Your task to perform on an android device: Go to eBay Image 0: 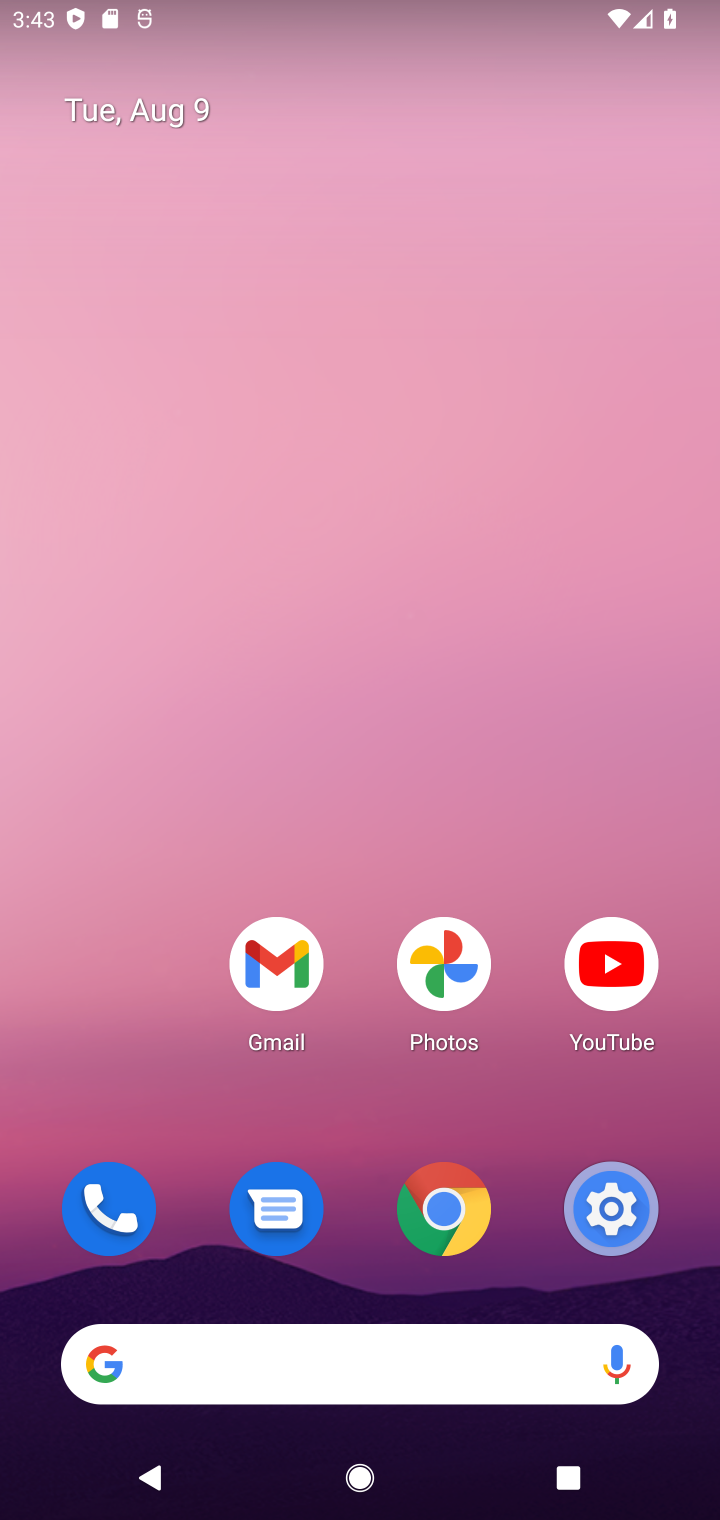
Step 0: click (446, 1213)
Your task to perform on an android device: Go to eBay Image 1: 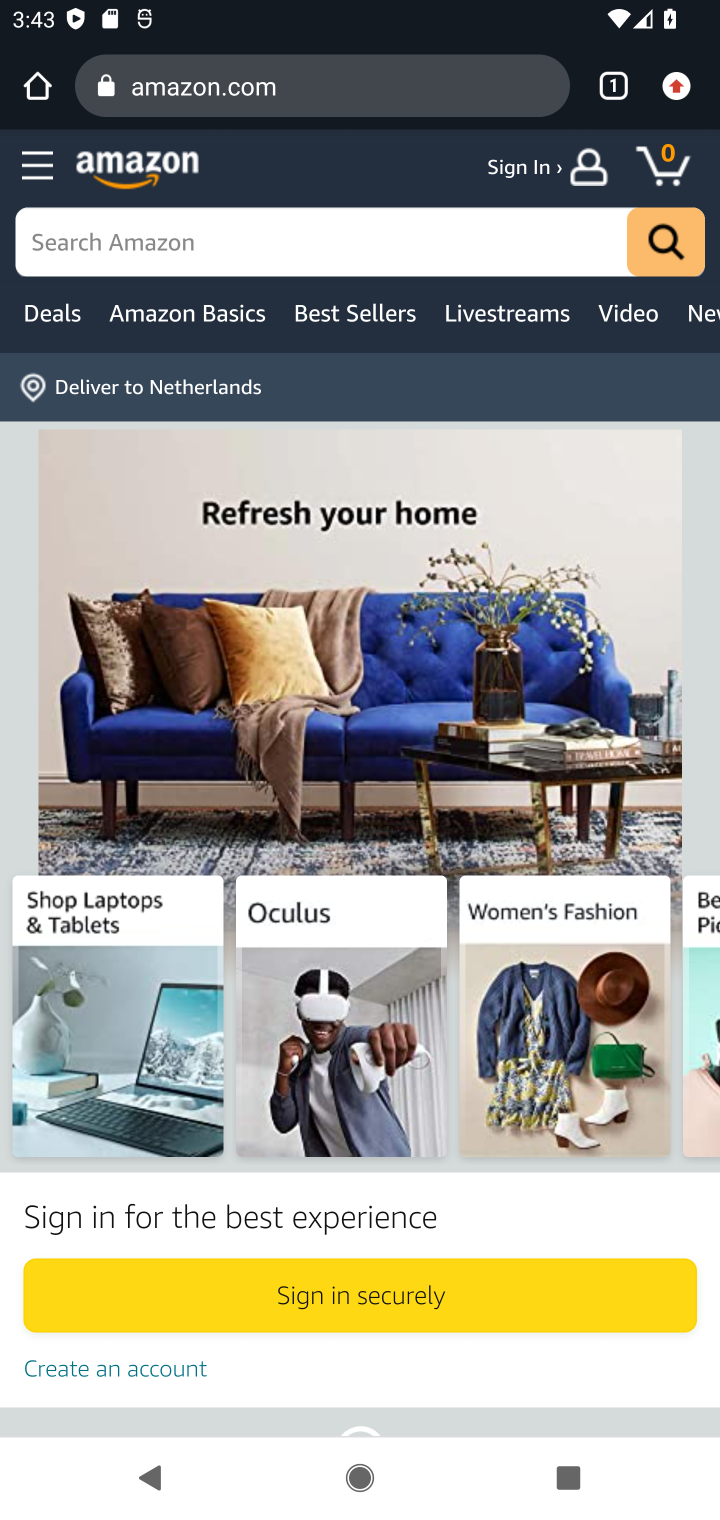
Step 1: click (667, 87)
Your task to perform on an android device: Go to eBay Image 2: 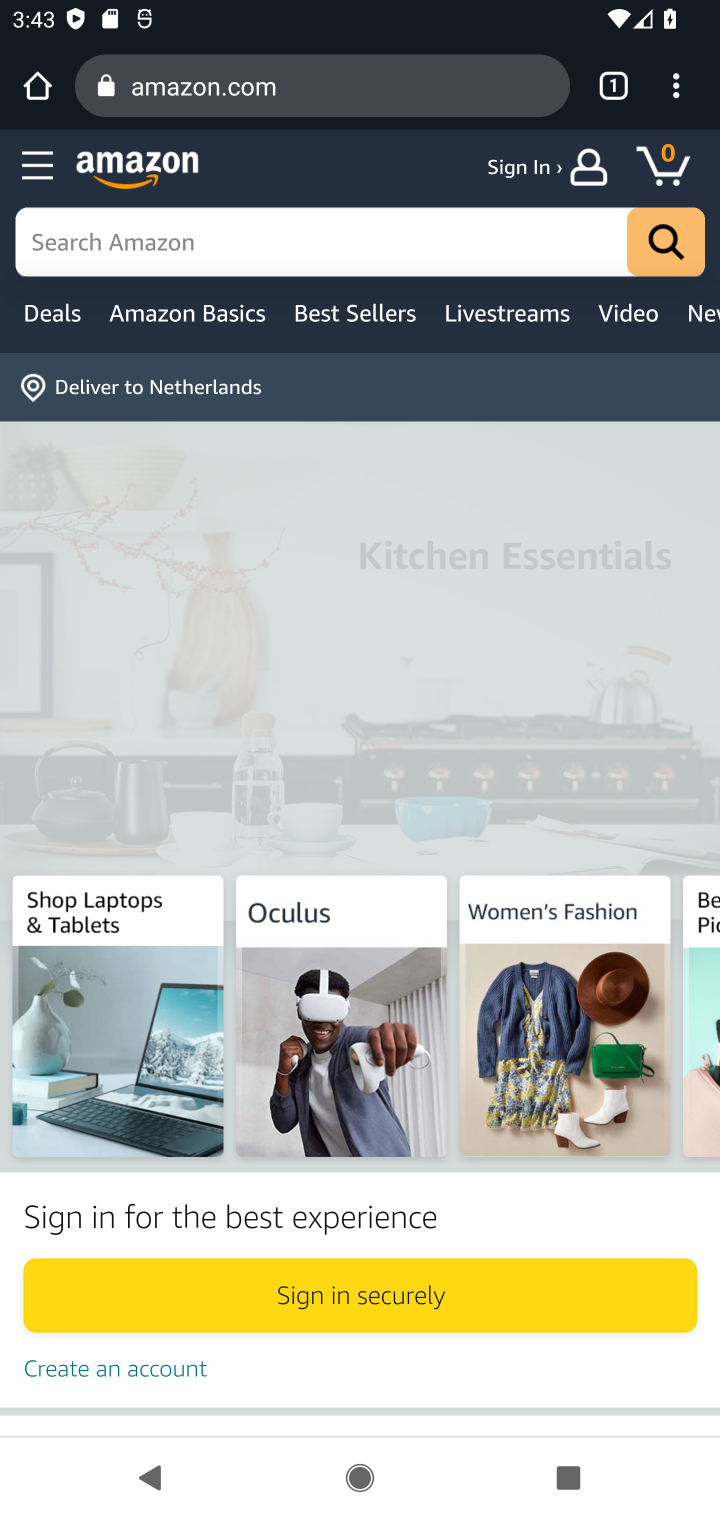
Step 2: click (681, 102)
Your task to perform on an android device: Go to eBay Image 3: 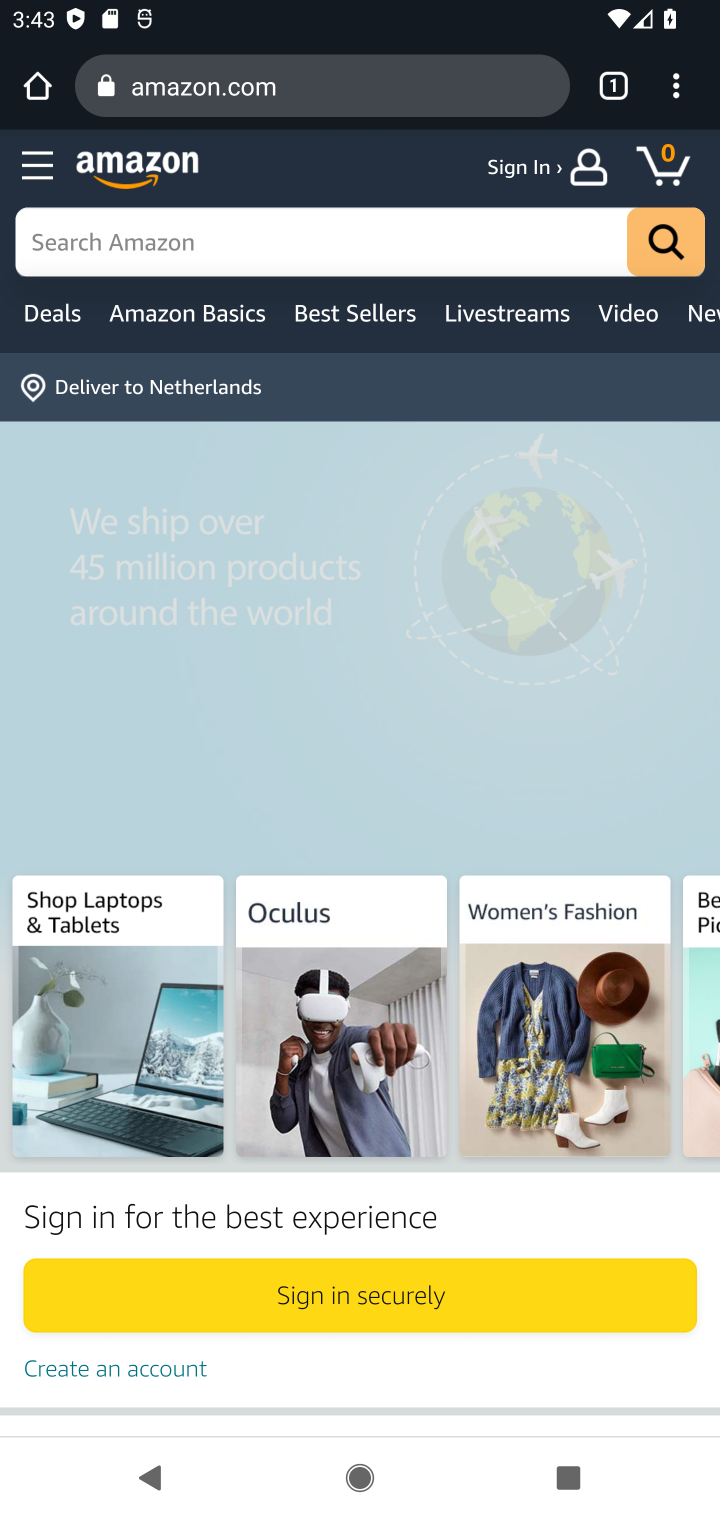
Step 3: click (652, 76)
Your task to perform on an android device: Go to eBay Image 4: 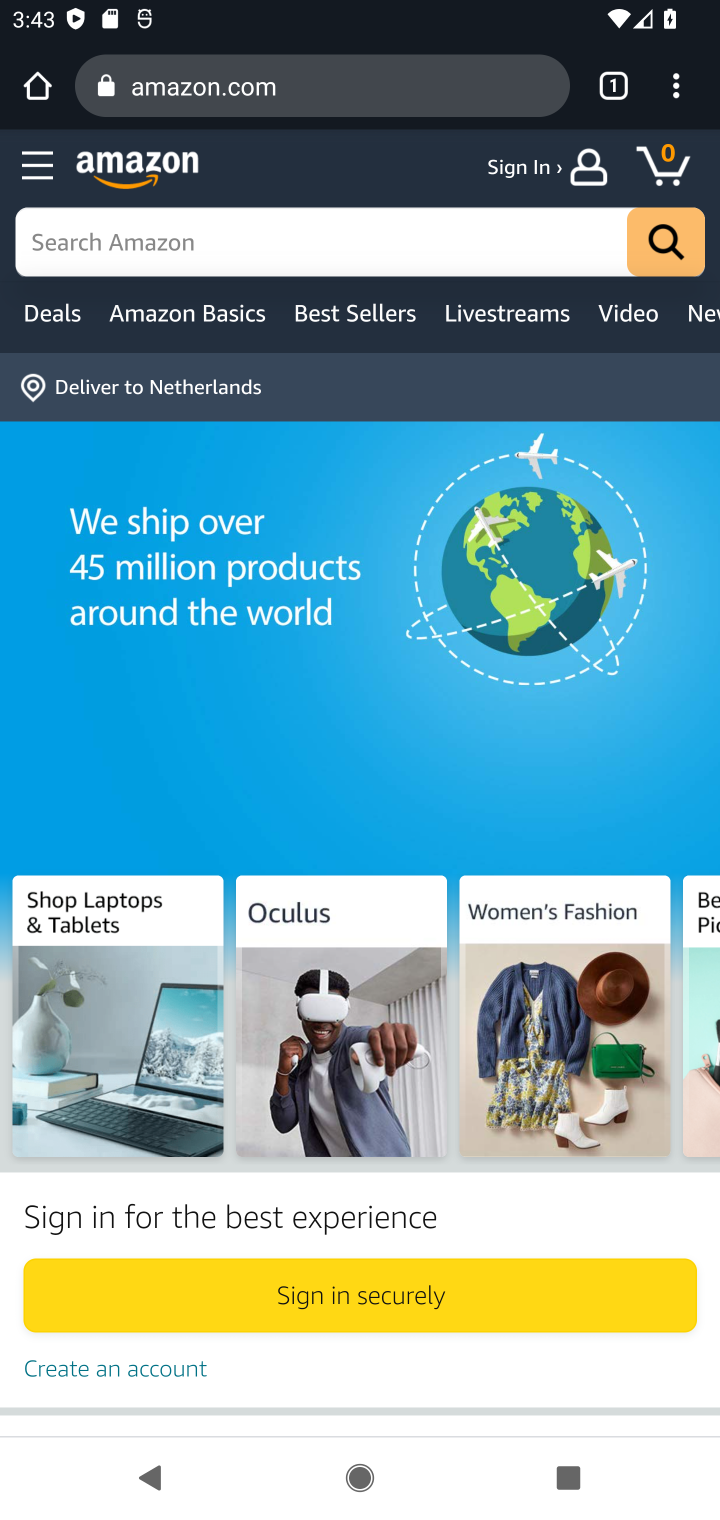
Step 4: click (40, 81)
Your task to perform on an android device: Go to eBay Image 5: 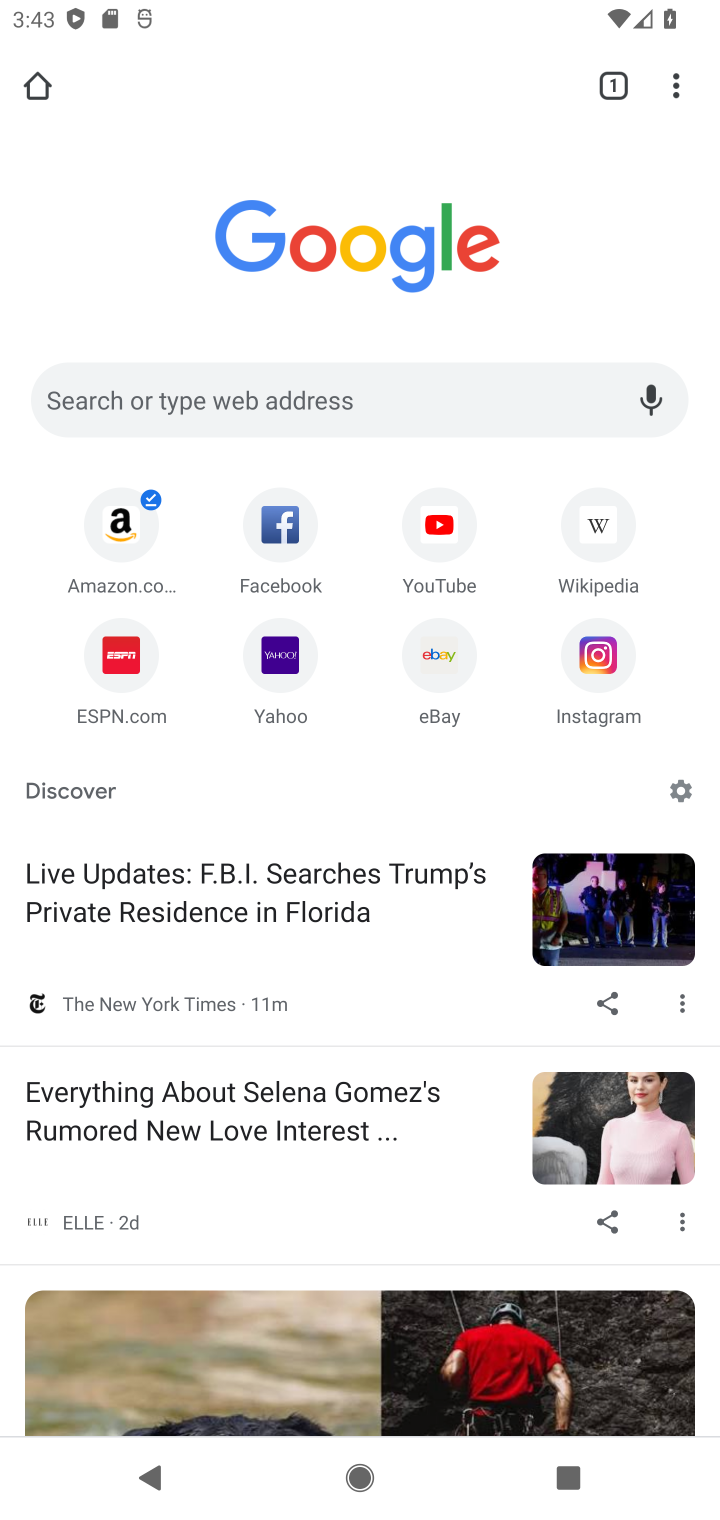
Step 5: click (426, 658)
Your task to perform on an android device: Go to eBay Image 6: 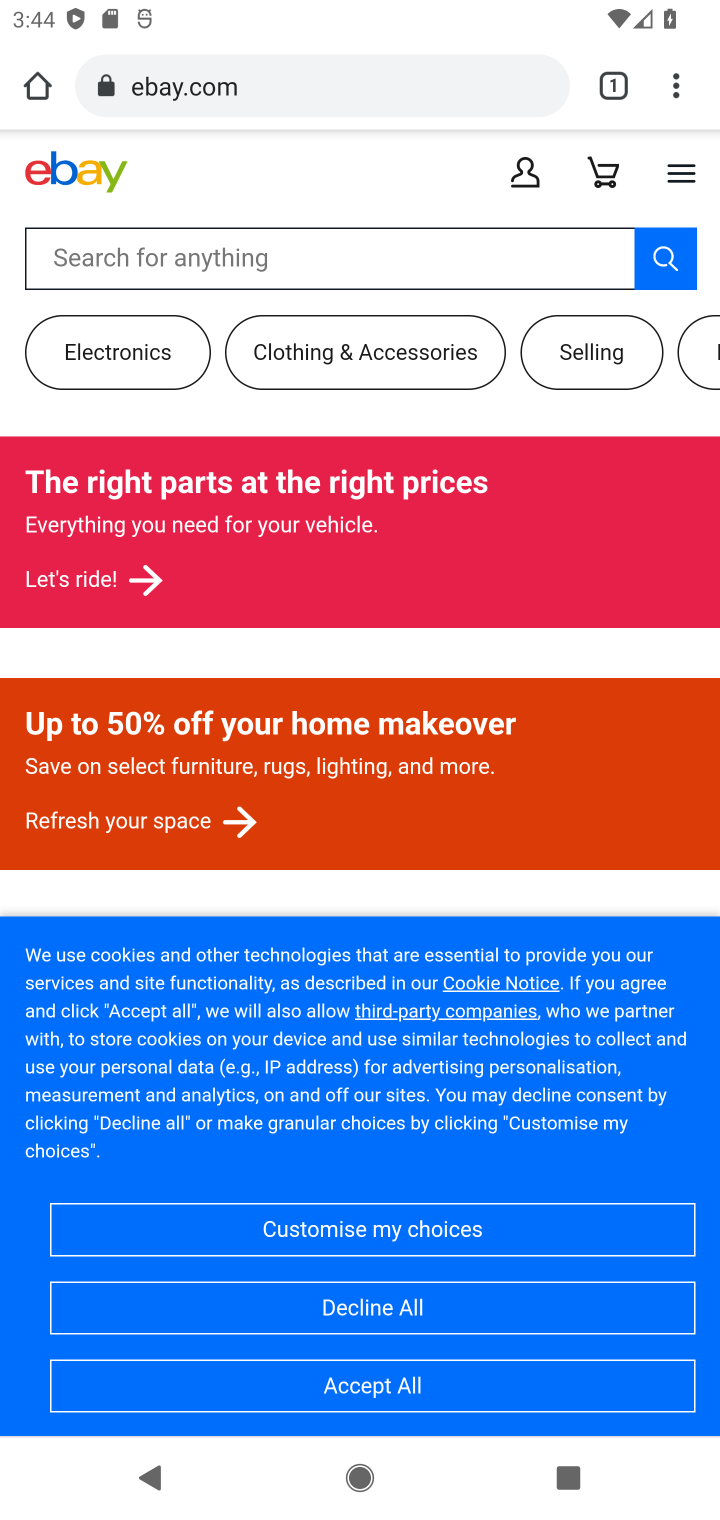
Step 6: click (414, 1382)
Your task to perform on an android device: Go to eBay Image 7: 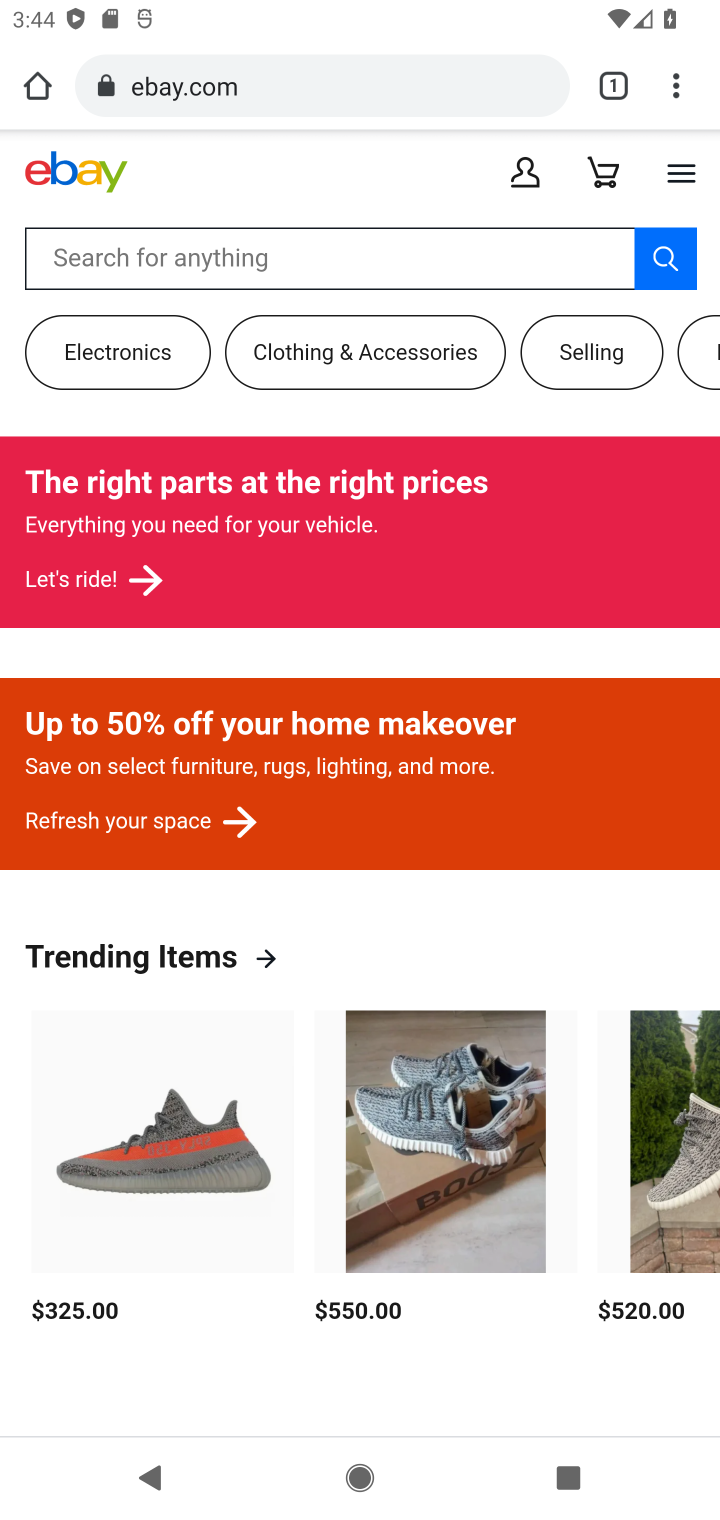
Step 7: task complete